Your task to perform on an android device: Open display settings Image 0: 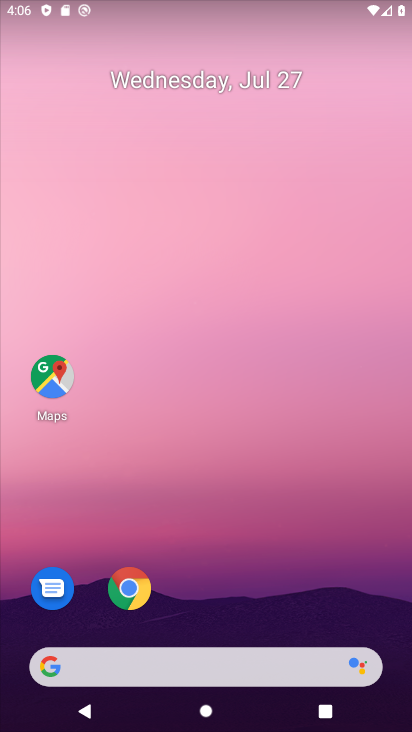
Step 0: drag from (241, 724) to (246, 273)
Your task to perform on an android device: Open display settings Image 1: 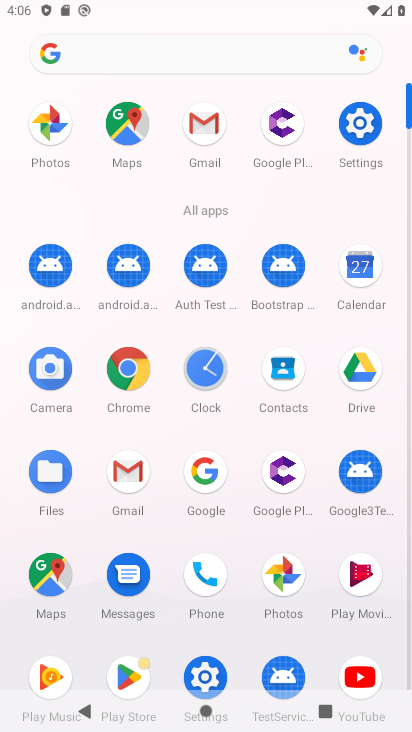
Step 1: click (360, 125)
Your task to perform on an android device: Open display settings Image 2: 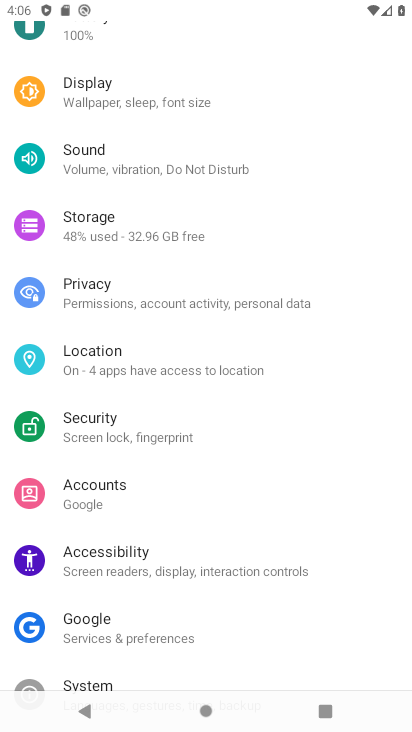
Step 2: click (80, 89)
Your task to perform on an android device: Open display settings Image 3: 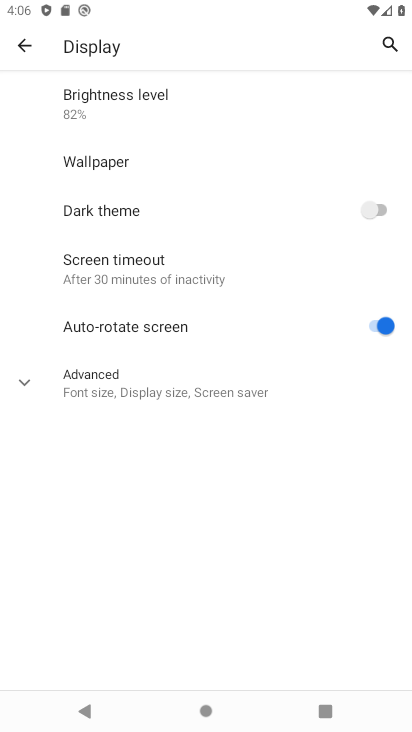
Step 3: task complete